Your task to perform on an android device: Is it going to rain today? Image 0: 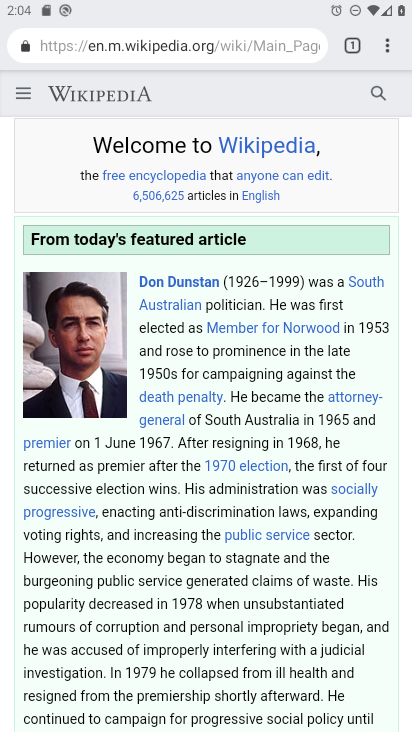
Step 0: press home button
Your task to perform on an android device: Is it going to rain today? Image 1: 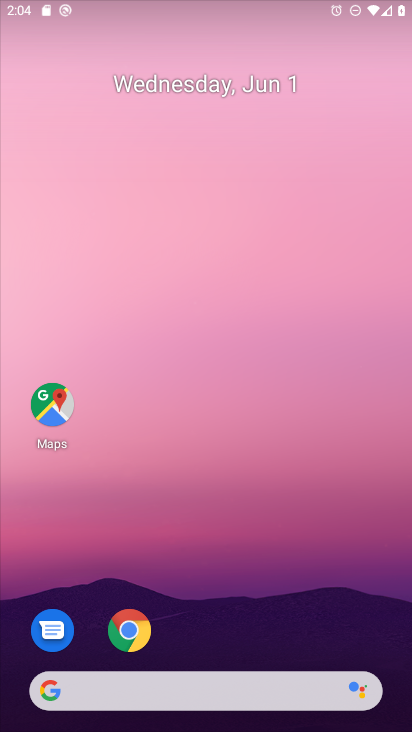
Step 1: drag from (282, 659) to (368, 14)
Your task to perform on an android device: Is it going to rain today? Image 2: 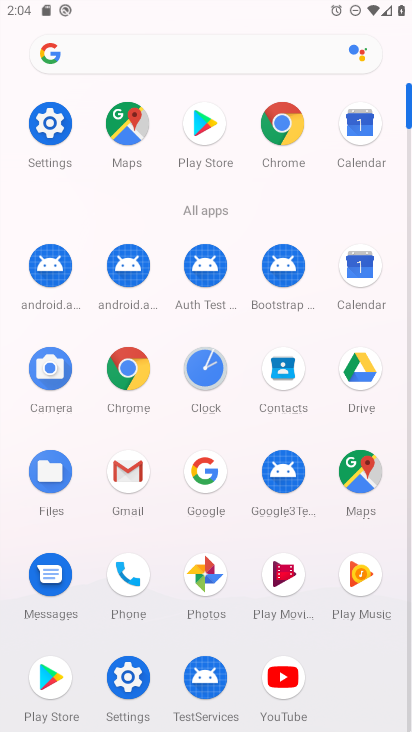
Step 2: press home button
Your task to perform on an android device: Is it going to rain today? Image 3: 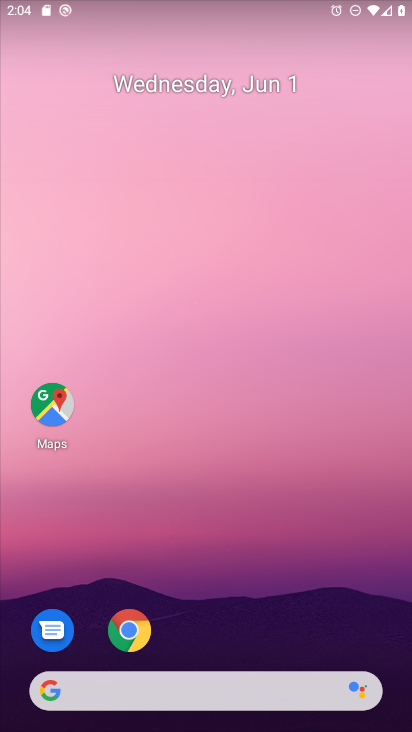
Step 3: drag from (20, 260) to (401, 218)
Your task to perform on an android device: Is it going to rain today? Image 4: 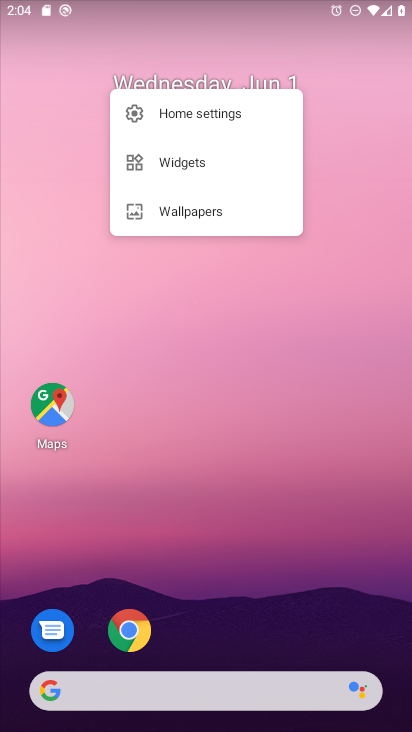
Step 4: click (261, 375)
Your task to perform on an android device: Is it going to rain today? Image 5: 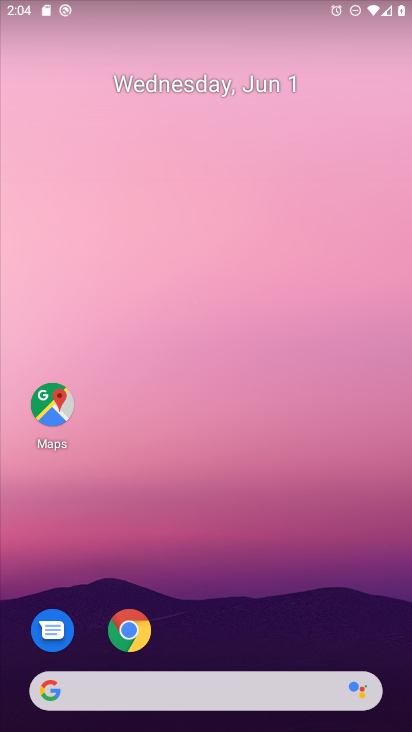
Step 5: drag from (91, 274) to (405, 228)
Your task to perform on an android device: Is it going to rain today? Image 6: 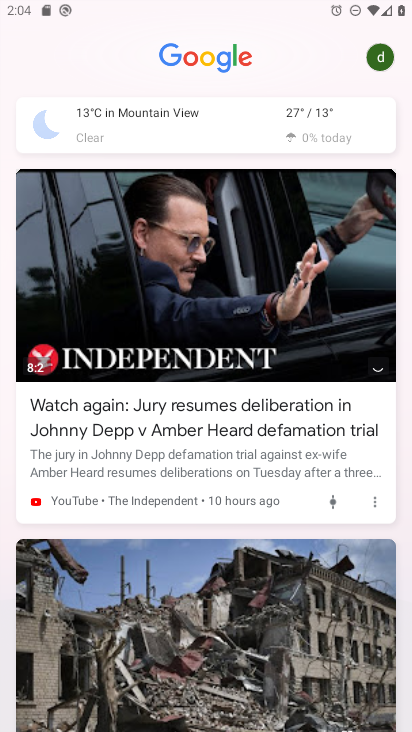
Step 6: click (259, 131)
Your task to perform on an android device: Is it going to rain today? Image 7: 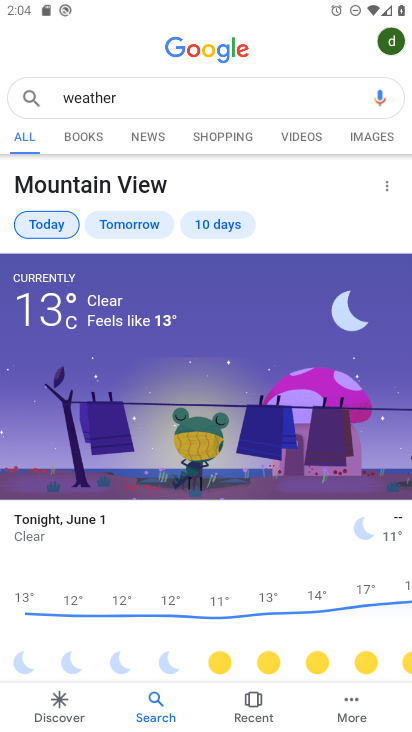
Step 7: task complete